Your task to perform on an android device: Open the calendar app, open the side menu, and click the "Day" option Image 0: 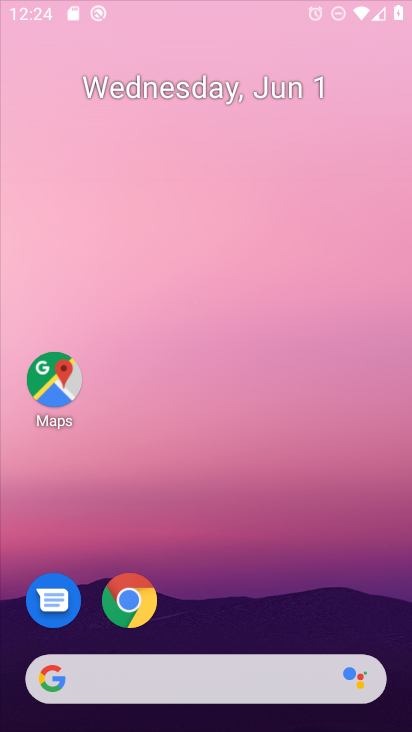
Step 0: press home button
Your task to perform on an android device: Open the calendar app, open the side menu, and click the "Day" option Image 1: 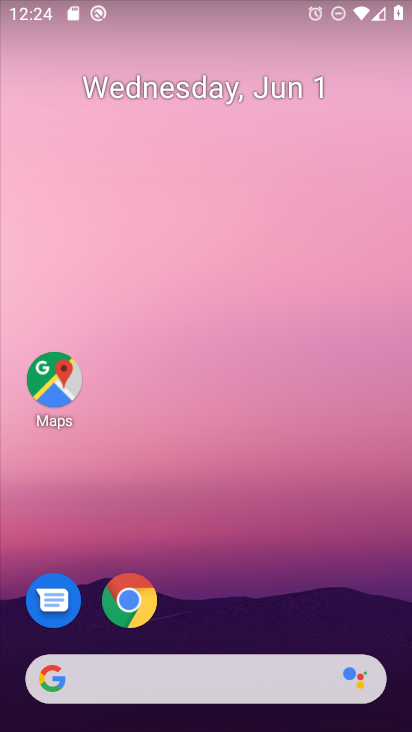
Step 1: click (126, 595)
Your task to perform on an android device: Open the calendar app, open the side menu, and click the "Day" option Image 2: 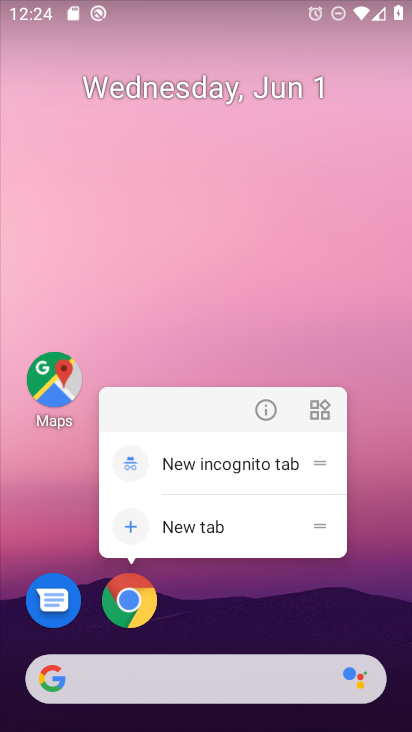
Step 2: click (126, 588)
Your task to perform on an android device: Open the calendar app, open the side menu, and click the "Day" option Image 3: 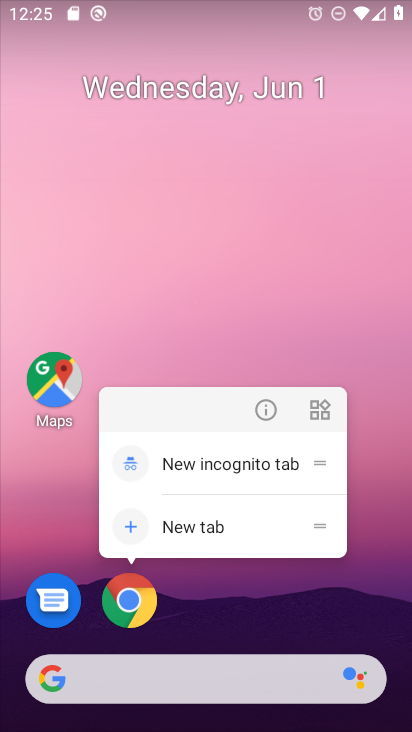
Step 3: click (209, 314)
Your task to perform on an android device: Open the calendar app, open the side menu, and click the "Day" option Image 4: 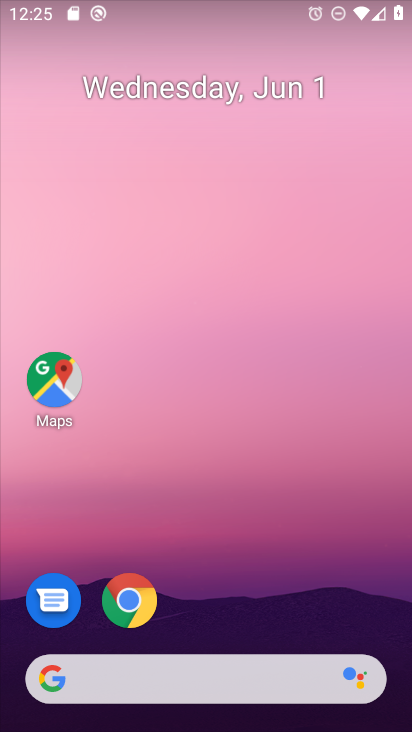
Step 4: drag from (223, 177) to (223, 38)
Your task to perform on an android device: Open the calendar app, open the side menu, and click the "Day" option Image 5: 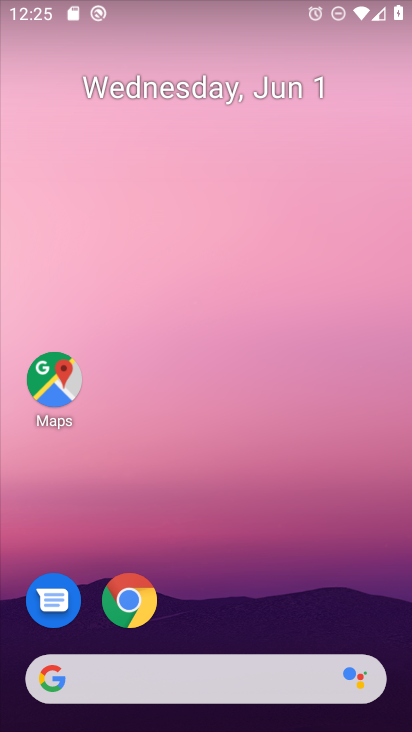
Step 5: drag from (222, 621) to (216, 16)
Your task to perform on an android device: Open the calendar app, open the side menu, and click the "Day" option Image 6: 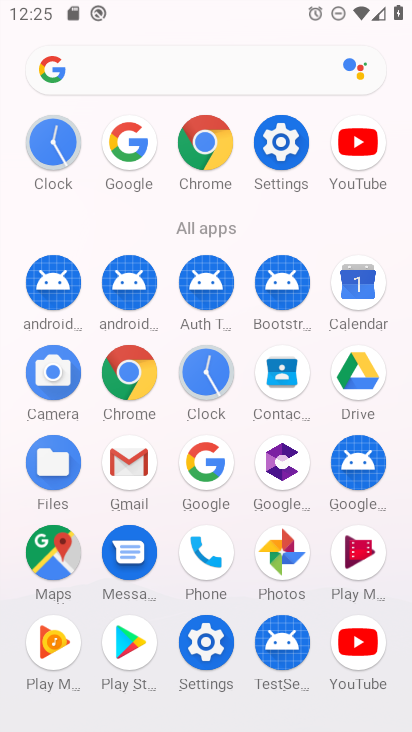
Step 6: click (354, 279)
Your task to perform on an android device: Open the calendar app, open the side menu, and click the "Day" option Image 7: 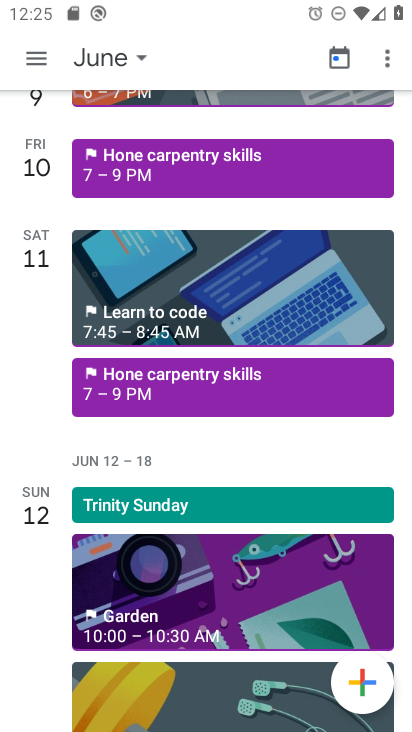
Step 7: click (37, 62)
Your task to perform on an android device: Open the calendar app, open the side menu, and click the "Day" option Image 8: 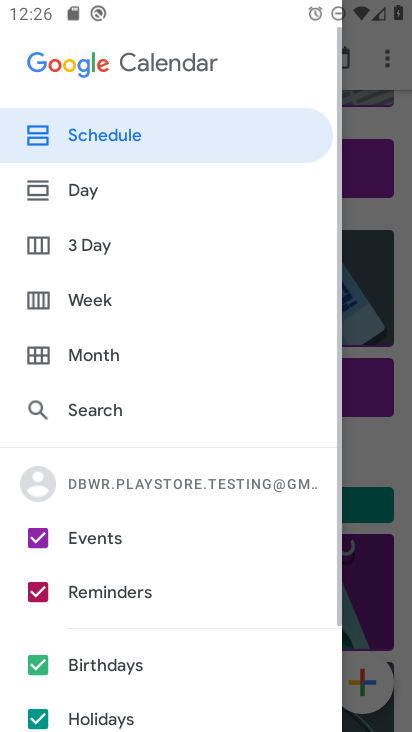
Step 8: click (66, 188)
Your task to perform on an android device: Open the calendar app, open the side menu, and click the "Day" option Image 9: 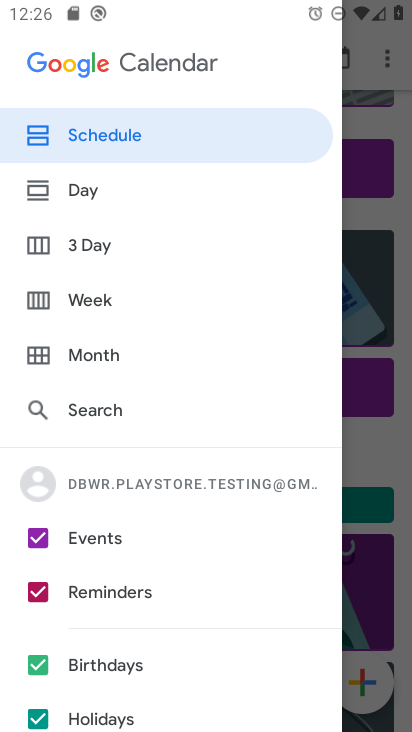
Step 9: click (65, 189)
Your task to perform on an android device: Open the calendar app, open the side menu, and click the "Day" option Image 10: 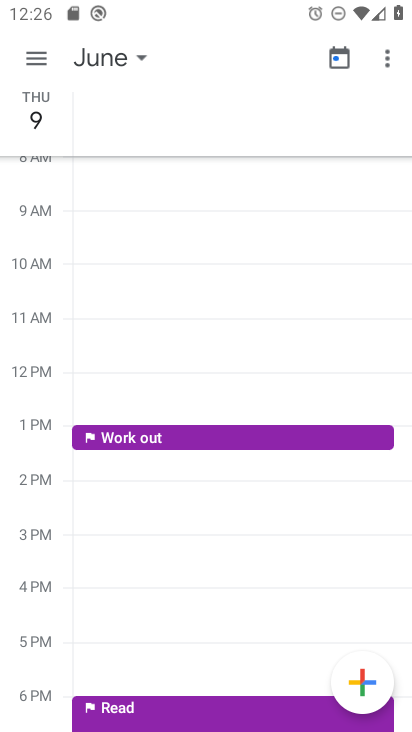
Step 10: task complete